Your task to perform on an android device: toggle notifications settings in the gmail app Image 0: 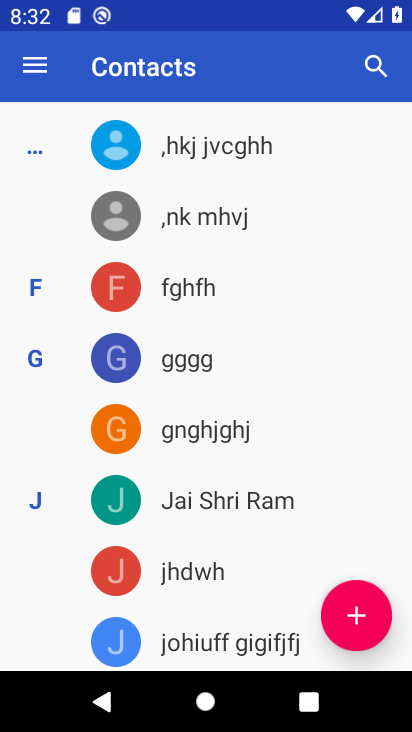
Step 0: press home button
Your task to perform on an android device: toggle notifications settings in the gmail app Image 1: 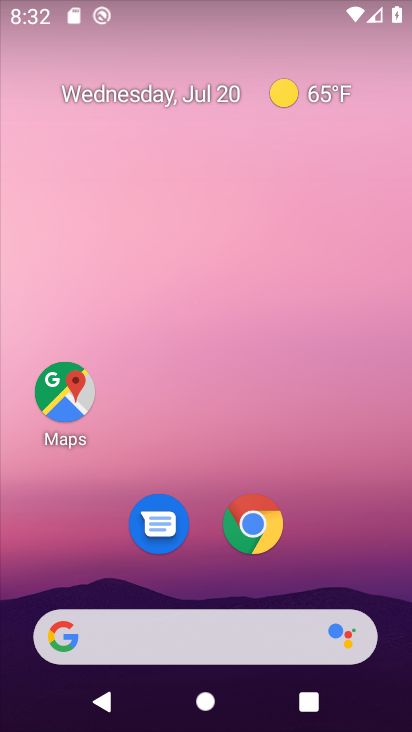
Step 1: drag from (327, 555) to (315, 83)
Your task to perform on an android device: toggle notifications settings in the gmail app Image 2: 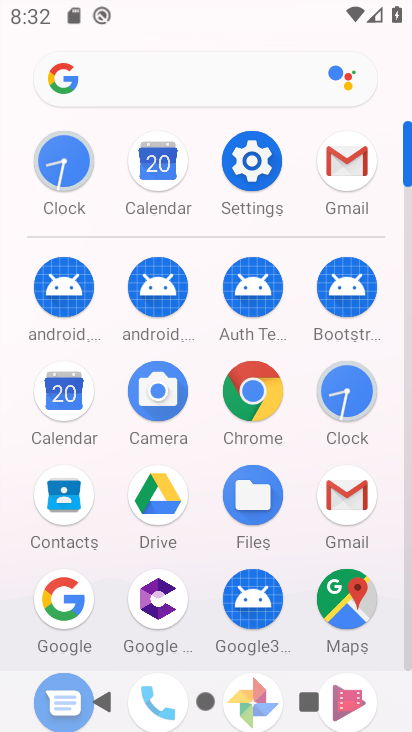
Step 2: click (338, 166)
Your task to perform on an android device: toggle notifications settings in the gmail app Image 3: 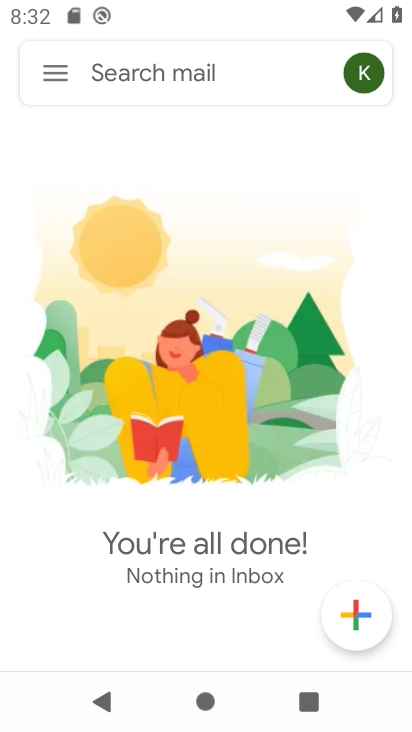
Step 3: click (58, 73)
Your task to perform on an android device: toggle notifications settings in the gmail app Image 4: 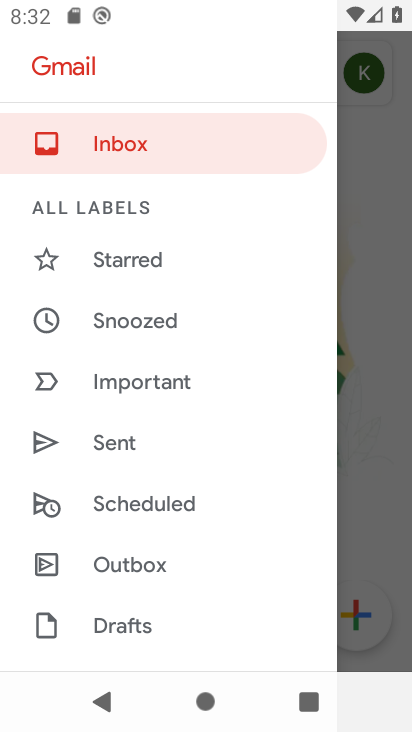
Step 4: drag from (165, 452) to (259, 49)
Your task to perform on an android device: toggle notifications settings in the gmail app Image 5: 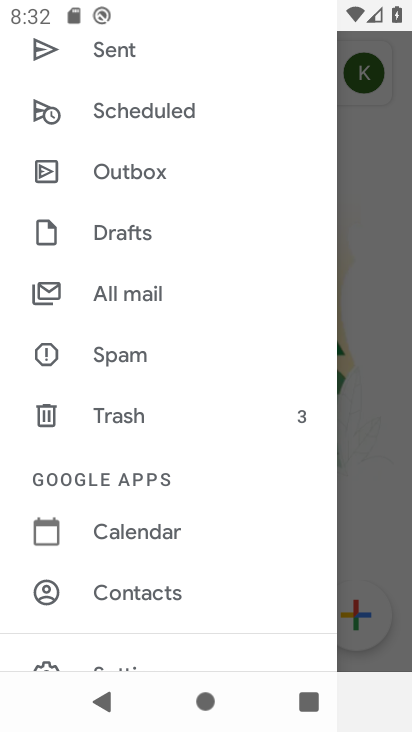
Step 5: drag from (169, 389) to (218, 119)
Your task to perform on an android device: toggle notifications settings in the gmail app Image 6: 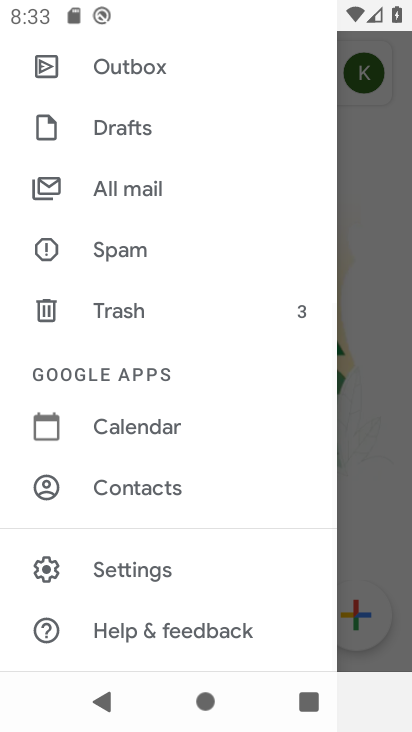
Step 6: click (133, 568)
Your task to perform on an android device: toggle notifications settings in the gmail app Image 7: 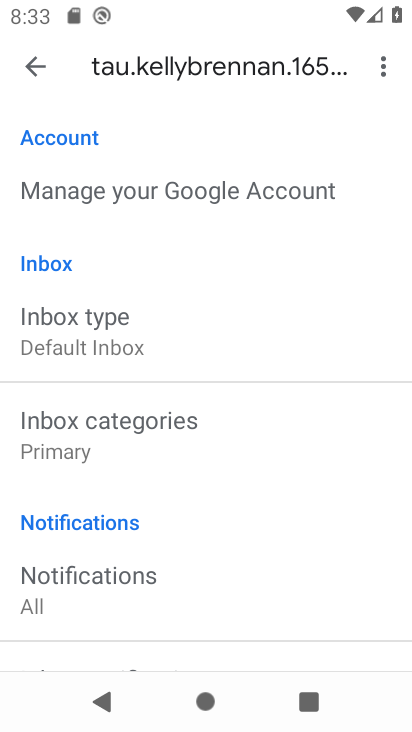
Step 7: drag from (225, 467) to (262, 90)
Your task to perform on an android device: toggle notifications settings in the gmail app Image 8: 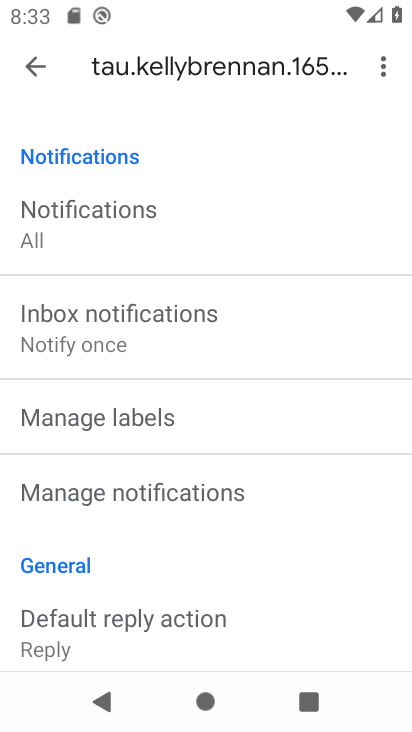
Step 8: click (185, 482)
Your task to perform on an android device: toggle notifications settings in the gmail app Image 9: 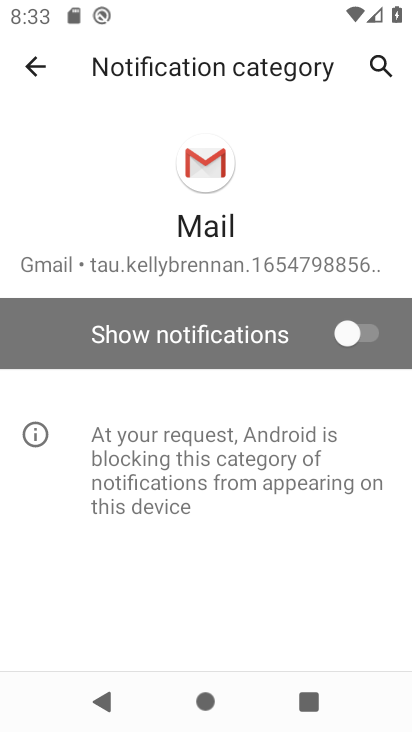
Step 9: click (354, 322)
Your task to perform on an android device: toggle notifications settings in the gmail app Image 10: 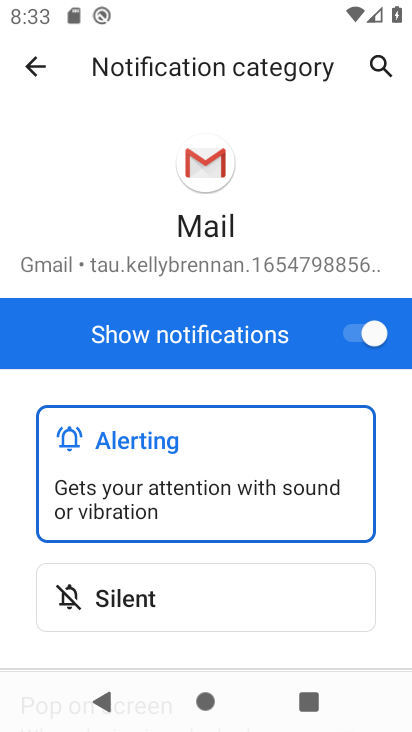
Step 10: task complete